Your task to perform on an android device: clear history in the chrome app Image 0: 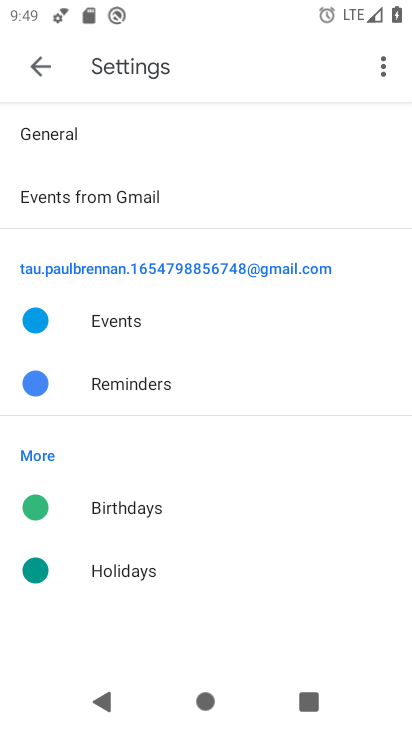
Step 0: press home button
Your task to perform on an android device: clear history in the chrome app Image 1: 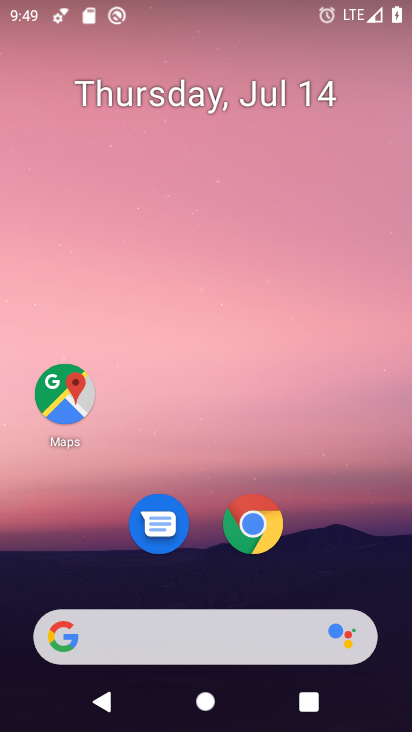
Step 1: click (250, 522)
Your task to perform on an android device: clear history in the chrome app Image 2: 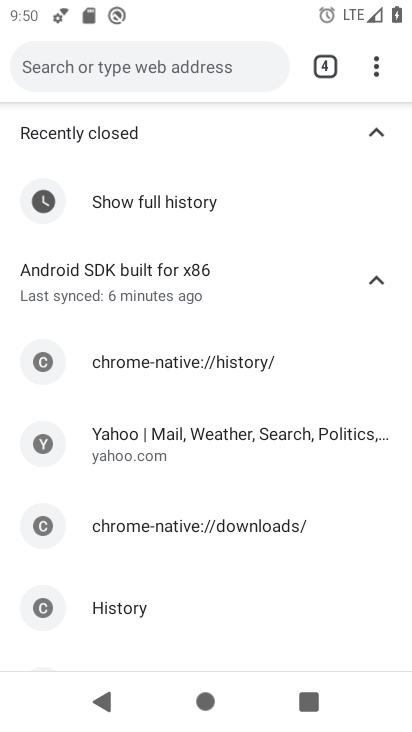
Step 2: click (372, 62)
Your task to perform on an android device: clear history in the chrome app Image 3: 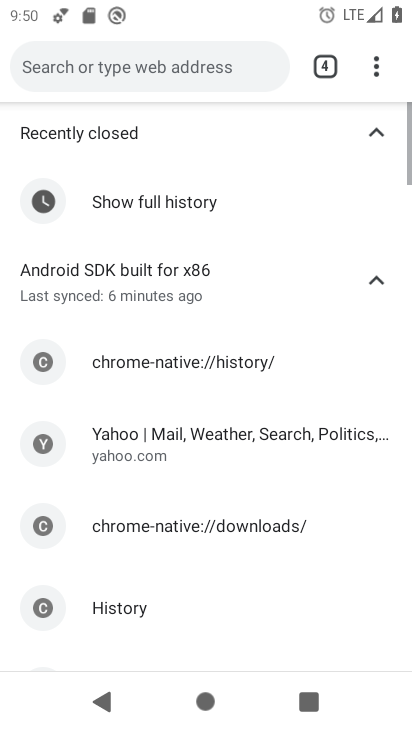
Step 3: click (372, 62)
Your task to perform on an android device: clear history in the chrome app Image 4: 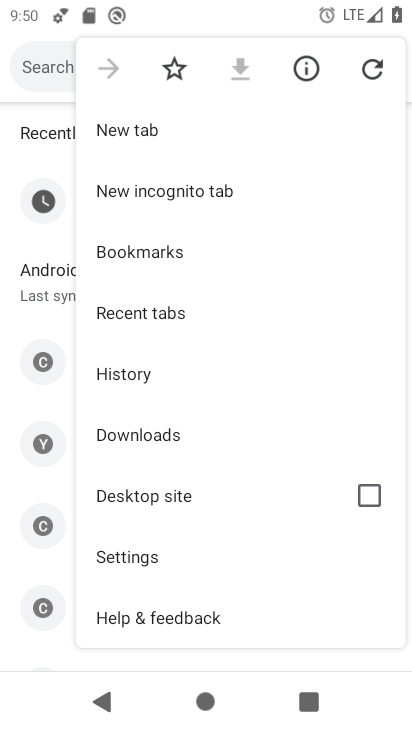
Step 4: click (151, 370)
Your task to perform on an android device: clear history in the chrome app Image 5: 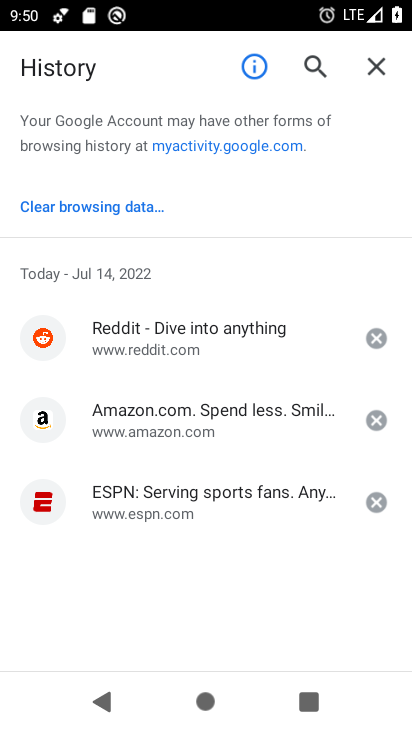
Step 5: click (122, 205)
Your task to perform on an android device: clear history in the chrome app Image 6: 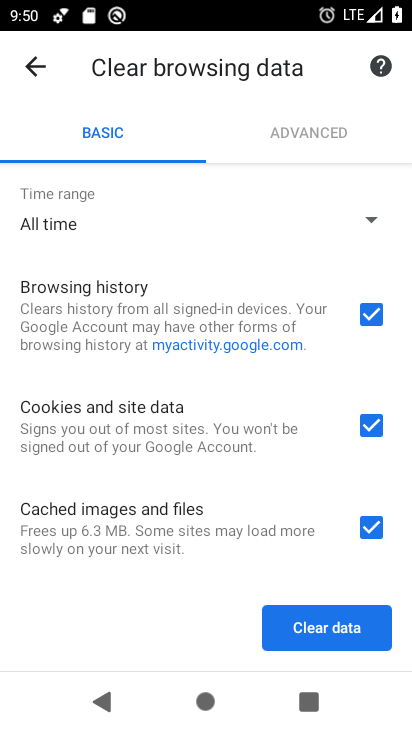
Step 6: click (330, 623)
Your task to perform on an android device: clear history in the chrome app Image 7: 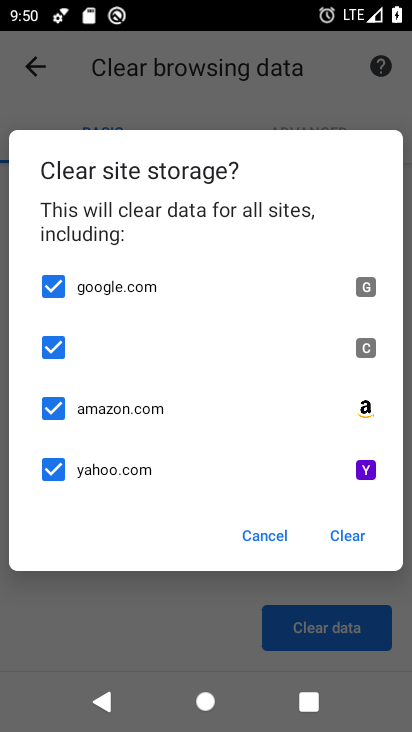
Step 7: click (353, 532)
Your task to perform on an android device: clear history in the chrome app Image 8: 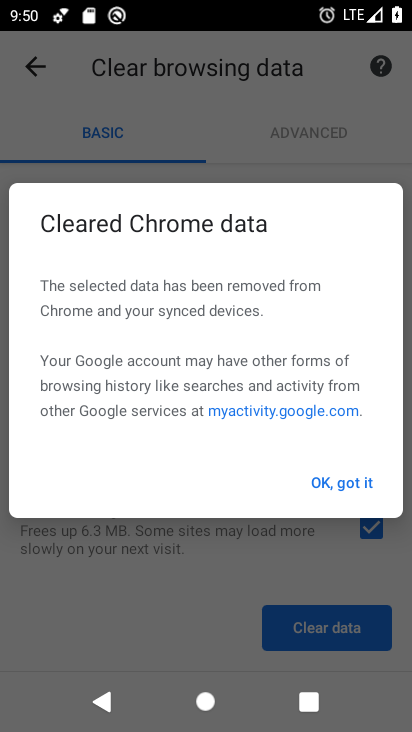
Step 8: click (352, 484)
Your task to perform on an android device: clear history in the chrome app Image 9: 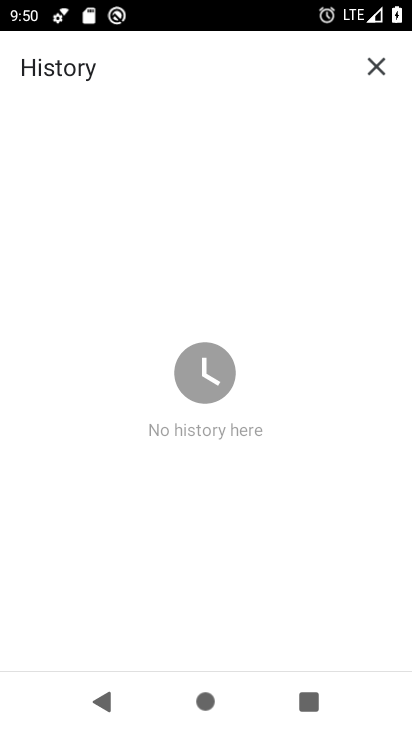
Step 9: task complete